Your task to perform on an android device: Go to battery settings Image 0: 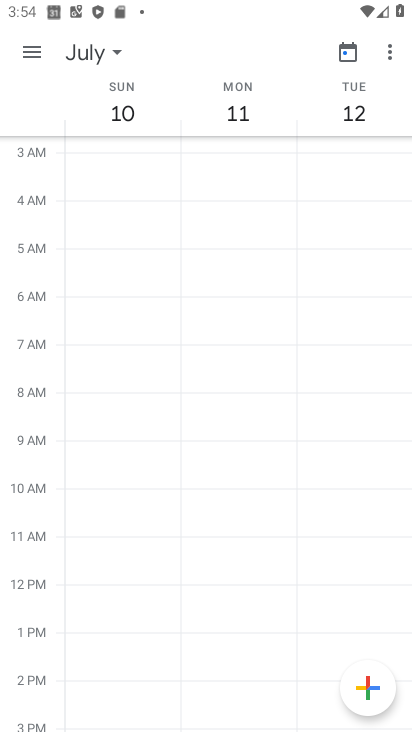
Step 0: press home button
Your task to perform on an android device: Go to battery settings Image 1: 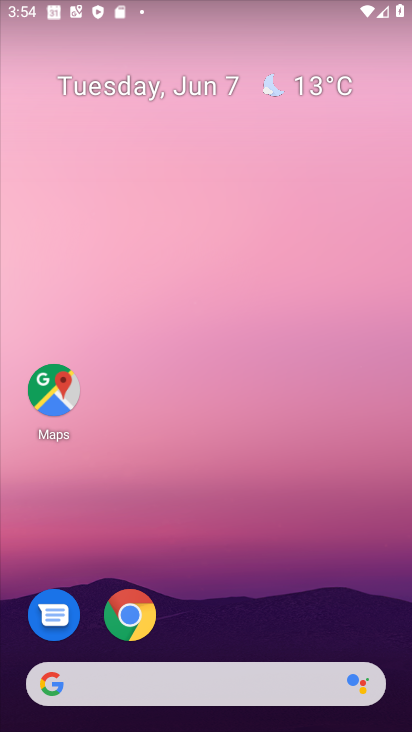
Step 1: drag from (229, 580) to (394, 36)
Your task to perform on an android device: Go to battery settings Image 2: 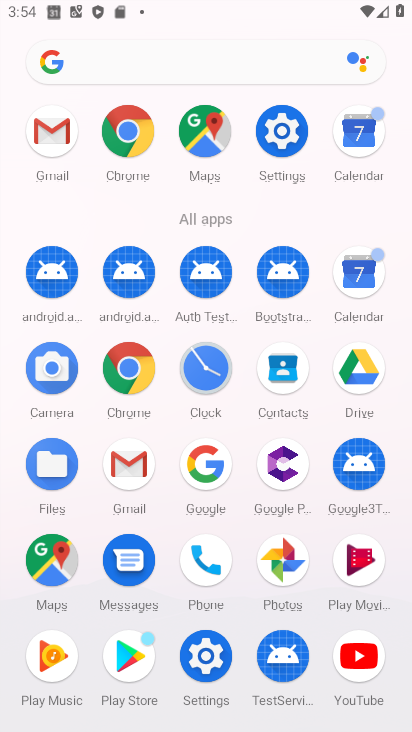
Step 2: click (208, 660)
Your task to perform on an android device: Go to battery settings Image 3: 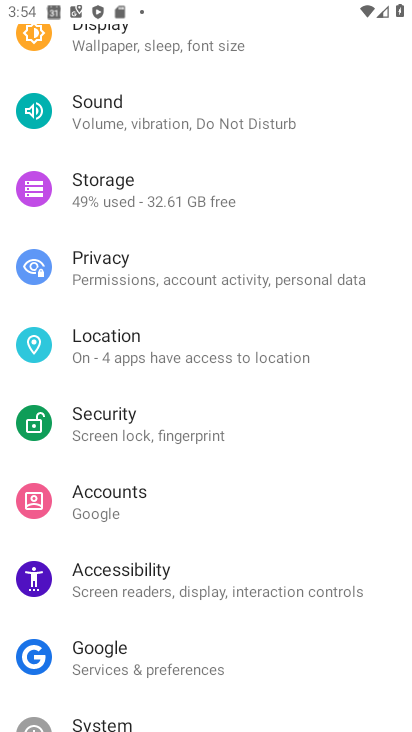
Step 3: drag from (185, 140) to (222, 686)
Your task to perform on an android device: Go to battery settings Image 4: 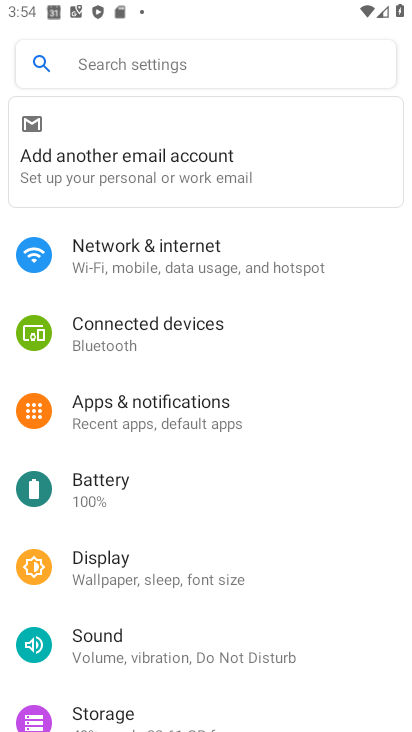
Step 4: click (143, 496)
Your task to perform on an android device: Go to battery settings Image 5: 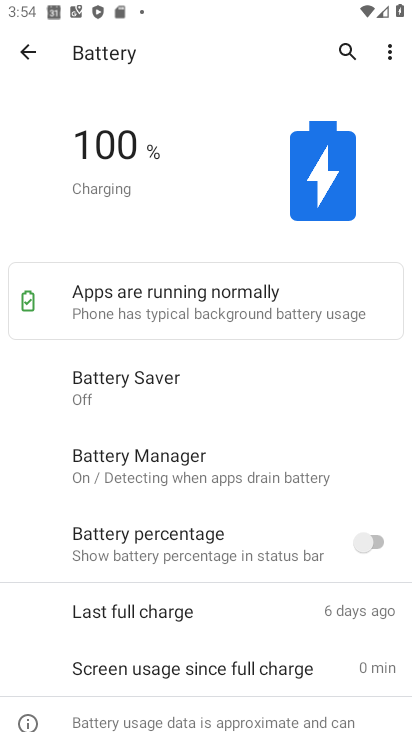
Step 5: task complete